Your task to perform on an android device: Go to calendar. Show me events next week Image 0: 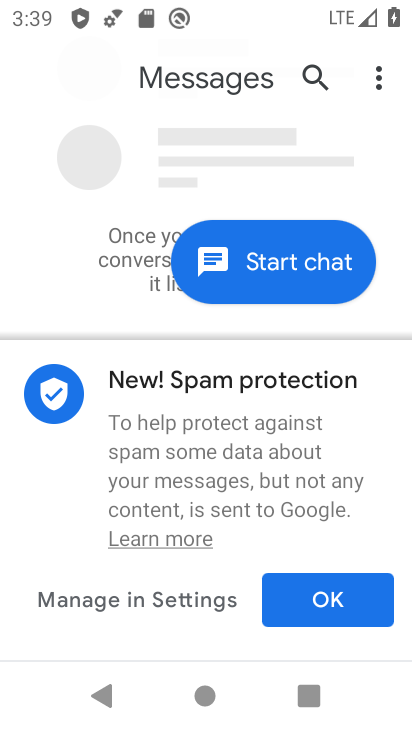
Step 0: press home button
Your task to perform on an android device: Go to calendar. Show me events next week Image 1: 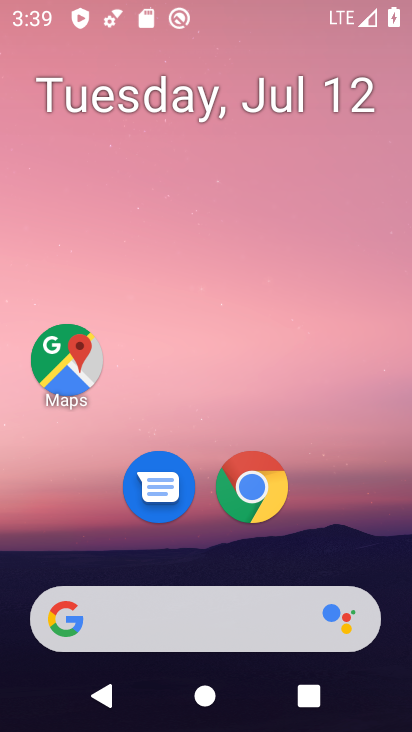
Step 1: drag from (196, 616) to (245, 140)
Your task to perform on an android device: Go to calendar. Show me events next week Image 2: 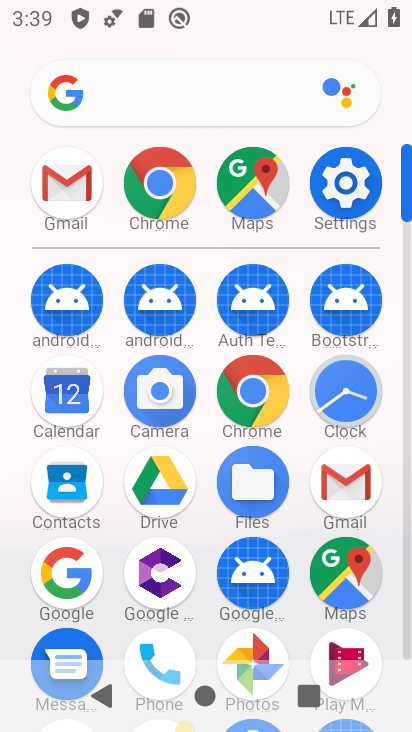
Step 2: click (66, 402)
Your task to perform on an android device: Go to calendar. Show me events next week Image 3: 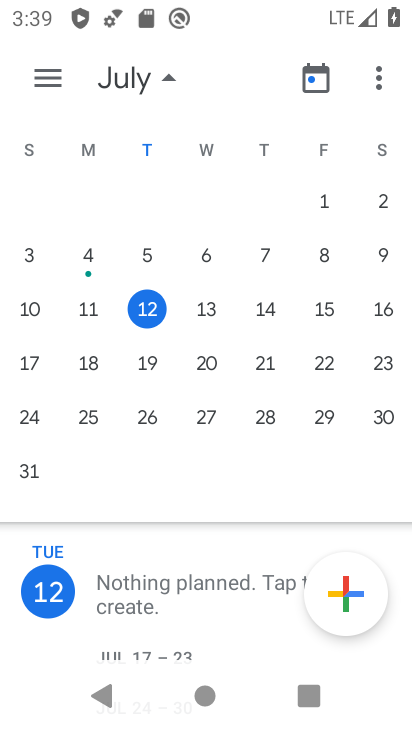
Step 3: click (29, 365)
Your task to perform on an android device: Go to calendar. Show me events next week Image 4: 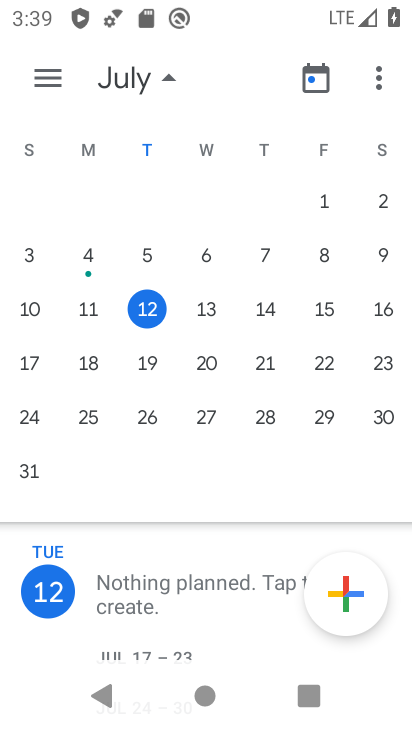
Step 4: click (36, 367)
Your task to perform on an android device: Go to calendar. Show me events next week Image 5: 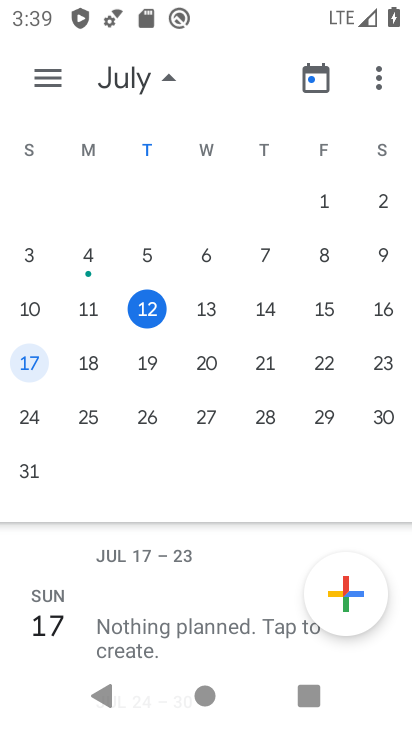
Step 5: task complete